Your task to perform on an android device: How do I get to the nearest Subway? Image 0: 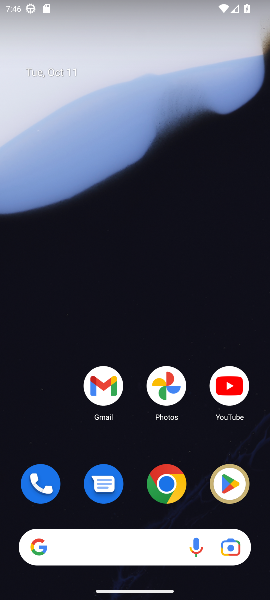
Step 0: click (166, 483)
Your task to perform on an android device: How do I get to the nearest Subway? Image 1: 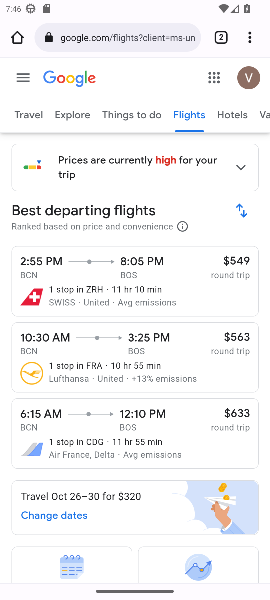
Step 1: click (142, 32)
Your task to perform on an android device: How do I get to the nearest Subway? Image 2: 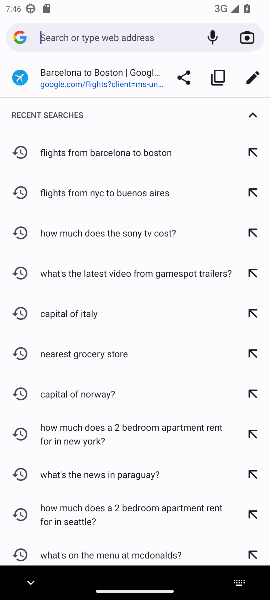
Step 2: type "How do I get to the nearest Subway?"
Your task to perform on an android device: How do I get to the nearest Subway? Image 3: 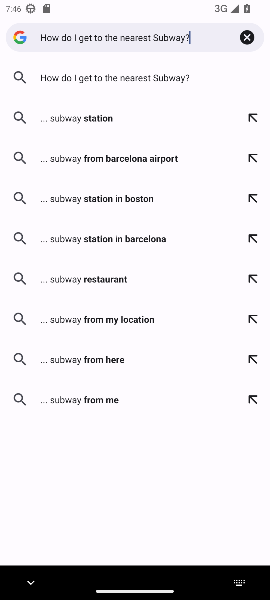
Step 3: click (98, 79)
Your task to perform on an android device: How do I get to the nearest Subway? Image 4: 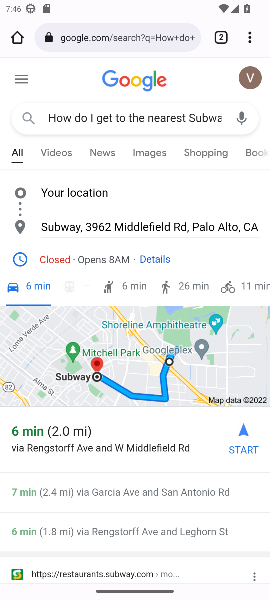
Step 4: task complete